Your task to perform on an android device: Open Reddit.com Image 0: 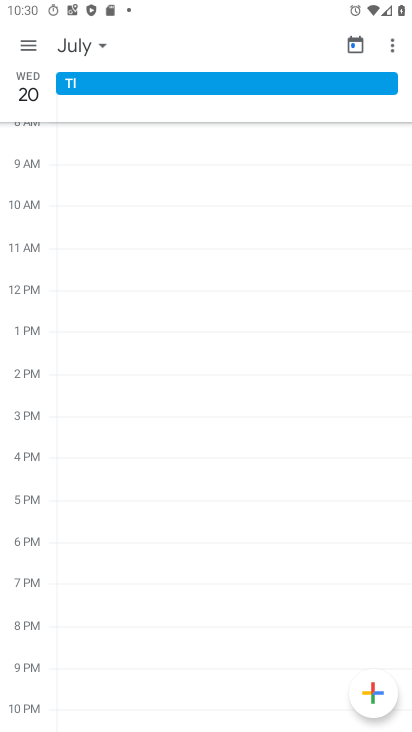
Step 0: press home button
Your task to perform on an android device: Open Reddit.com Image 1: 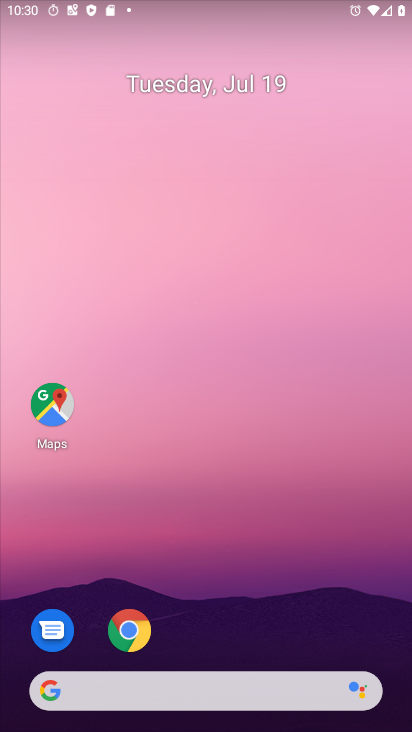
Step 1: click (43, 696)
Your task to perform on an android device: Open Reddit.com Image 2: 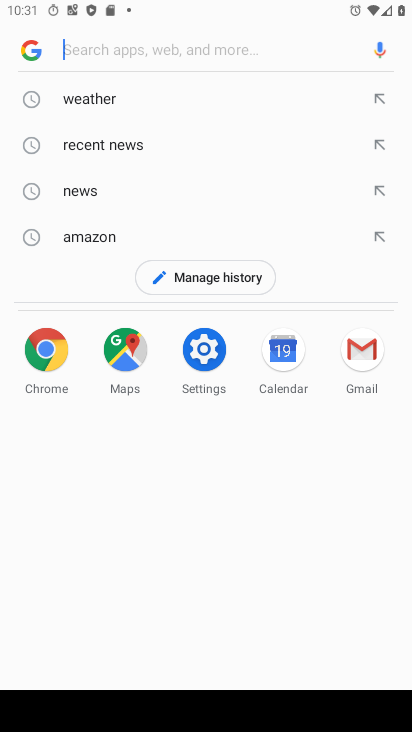
Step 2: type " Reddit.com"
Your task to perform on an android device: Open Reddit.com Image 3: 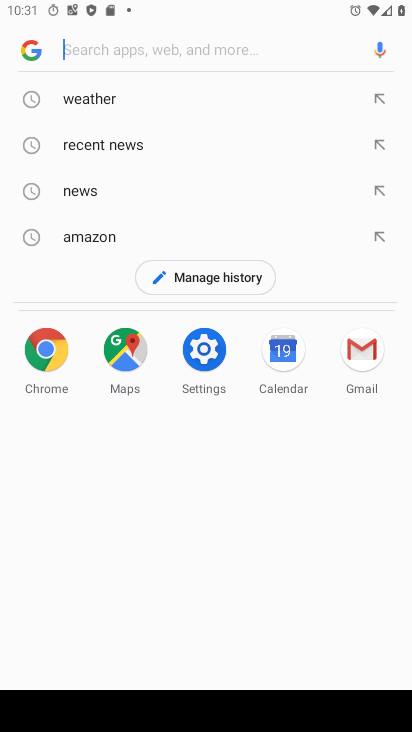
Step 3: click (82, 45)
Your task to perform on an android device: Open Reddit.com Image 4: 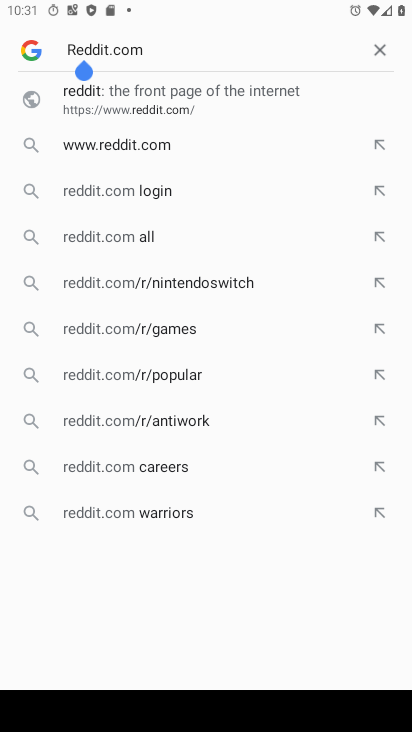
Step 4: click (123, 144)
Your task to perform on an android device: Open Reddit.com Image 5: 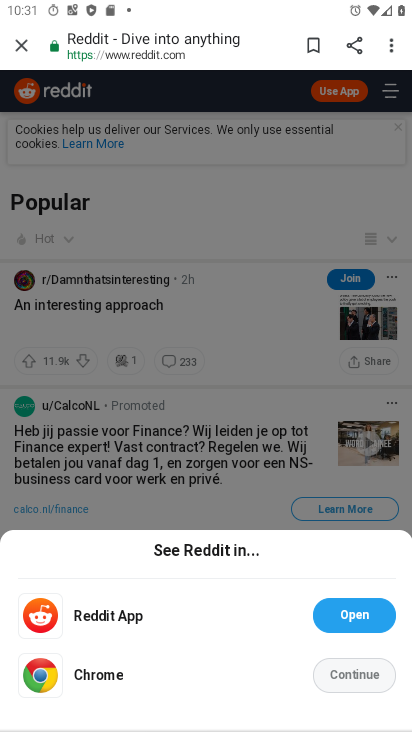
Step 5: task complete